Your task to perform on an android device: check out phone information Image 0: 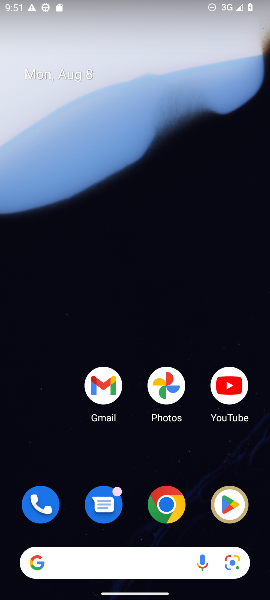
Step 0: drag from (69, 457) to (116, 99)
Your task to perform on an android device: check out phone information Image 1: 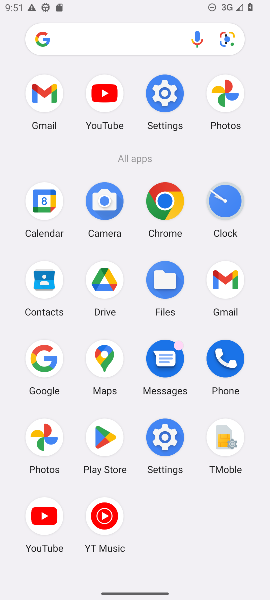
Step 1: click (161, 448)
Your task to perform on an android device: check out phone information Image 2: 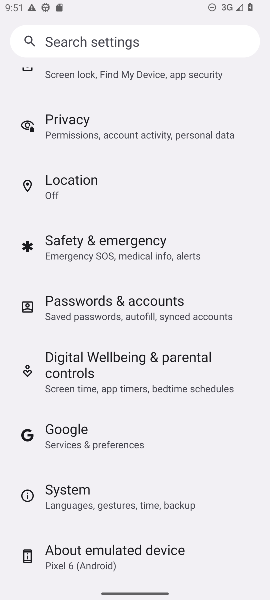
Step 2: drag from (156, 406) to (176, 211)
Your task to perform on an android device: check out phone information Image 3: 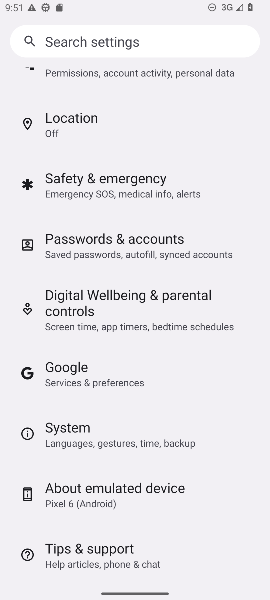
Step 3: click (116, 420)
Your task to perform on an android device: check out phone information Image 4: 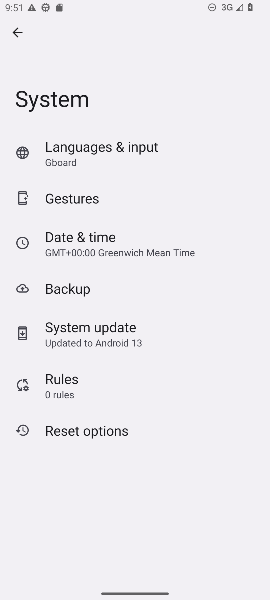
Step 4: click (19, 36)
Your task to perform on an android device: check out phone information Image 5: 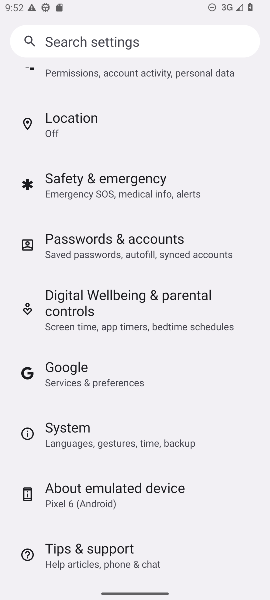
Step 5: drag from (106, 492) to (110, 361)
Your task to perform on an android device: check out phone information Image 6: 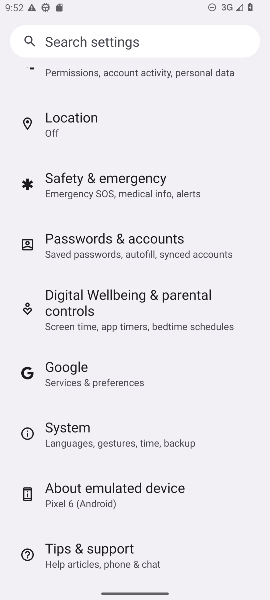
Step 6: click (81, 506)
Your task to perform on an android device: check out phone information Image 7: 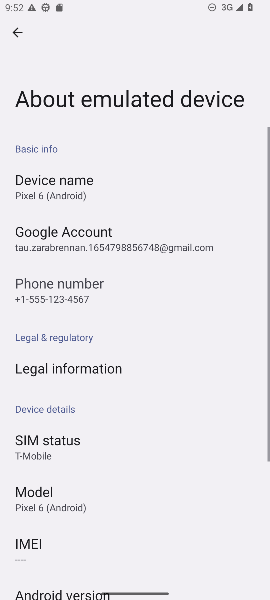
Step 7: task complete